Your task to perform on an android device: turn pop-ups on in chrome Image 0: 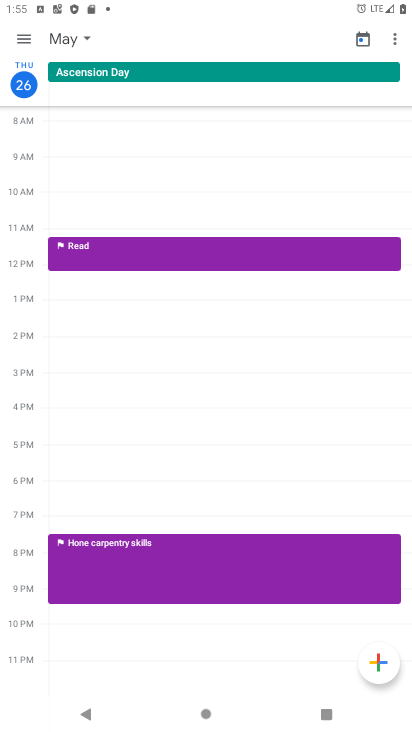
Step 0: press home button
Your task to perform on an android device: turn pop-ups on in chrome Image 1: 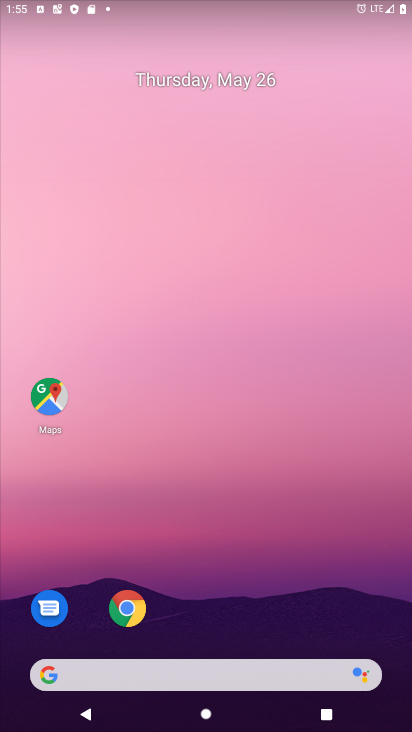
Step 1: click (124, 606)
Your task to perform on an android device: turn pop-ups on in chrome Image 2: 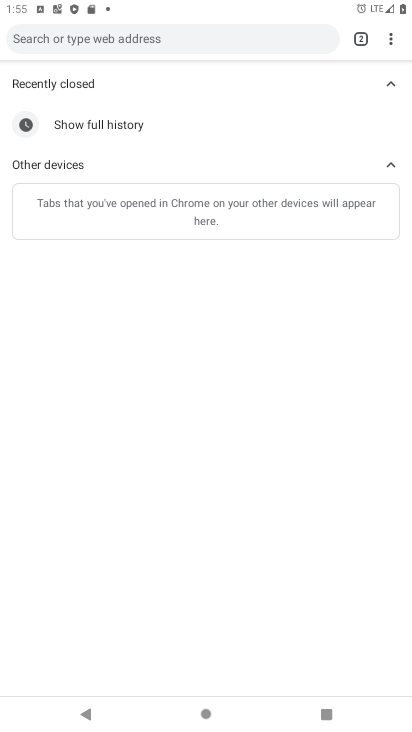
Step 2: click (389, 43)
Your task to perform on an android device: turn pop-ups on in chrome Image 3: 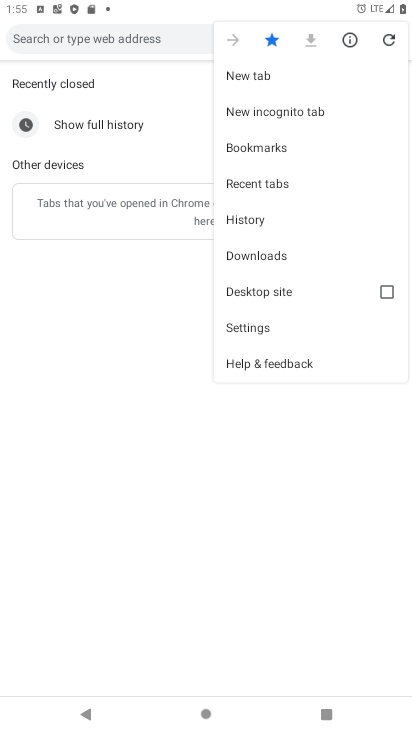
Step 3: click (254, 330)
Your task to perform on an android device: turn pop-ups on in chrome Image 4: 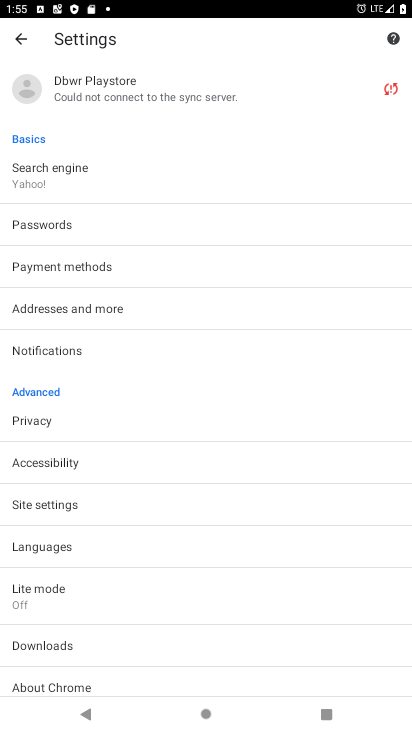
Step 4: click (59, 508)
Your task to perform on an android device: turn pop-ups on in chrome Image 5: 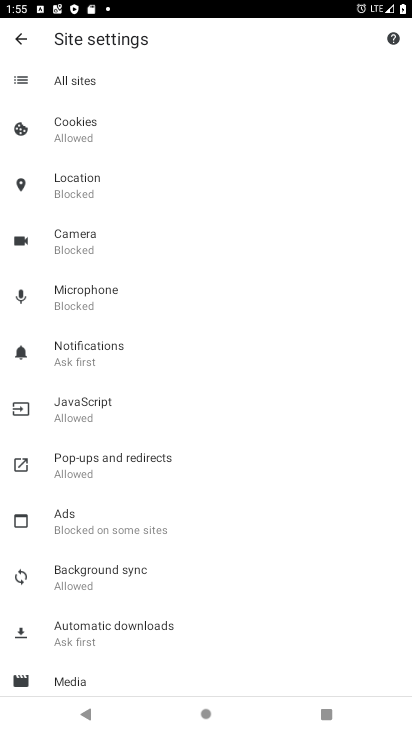
Step 5: click (77, 466)
Your task to perform on an android device: turn pop-ups on in chrome Image 6: 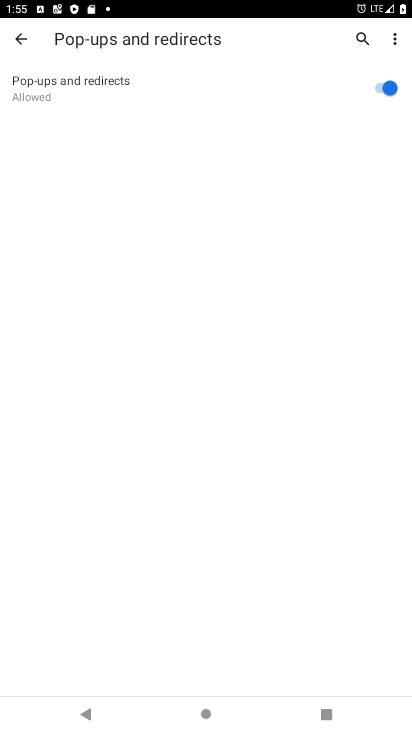
Step 6: task complete